Your task to perform on an android device: toggle notifications settings in the gmail app Image 0: 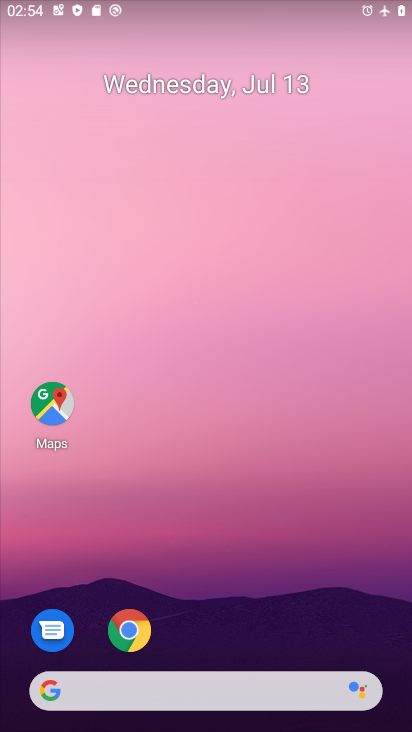
Step 0: drag from (208, 651) to (215, 315)
Your task to perform on an android device: toggle notifications settings in the gmail app Image 1: 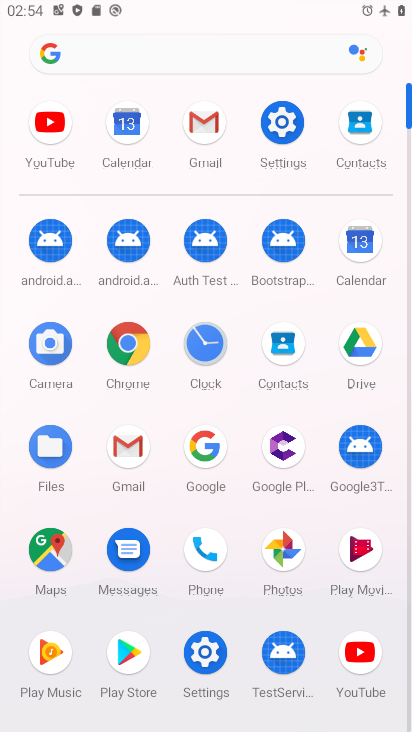
Step 1: click (213, 141)
Your task to perform on an android device: toggle notifications settings in the gmail app Image 2: 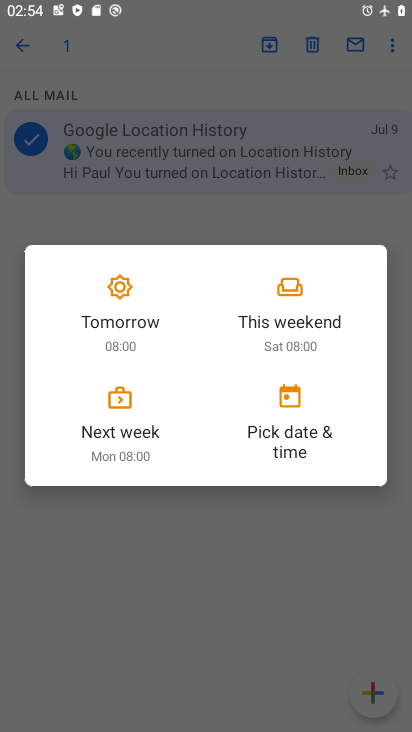
Step 2: click (242, 625)
Your task to perform on an android device: toggle notifications settings in the gmail app Image 3: 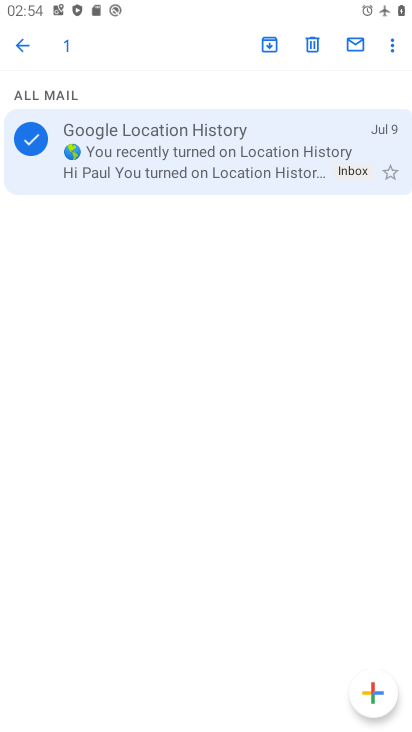
Step 3: click (24, 45)
Your task to perform on an android device: toggle notifications settings in the gmail app Image 4: 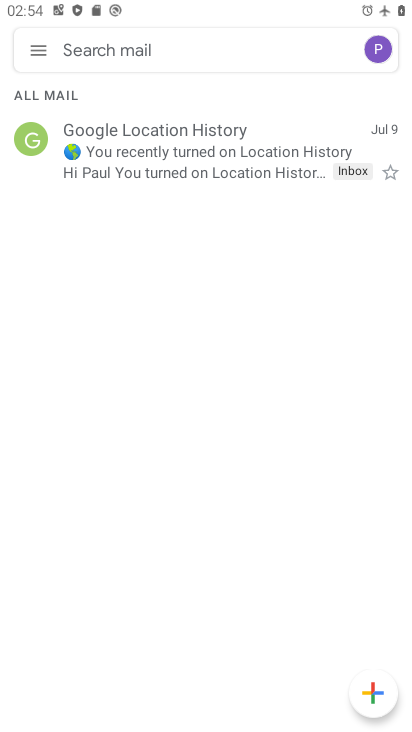
Step 4: click (24, 45)
Your task to perform on an android device: toggle notifications settings in the gmail app Image 5: 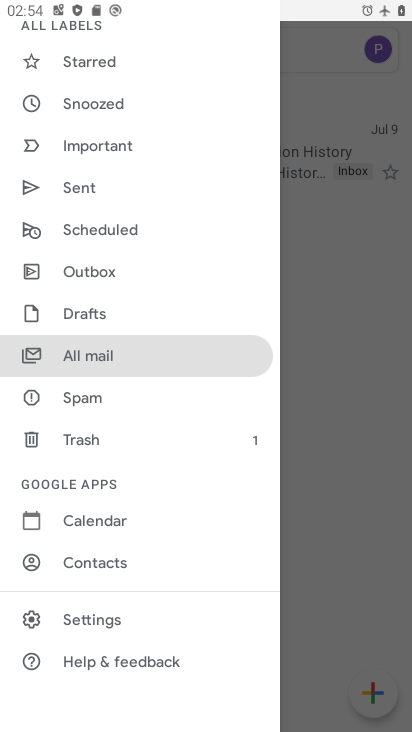
Step 5: click (103, 617)
Your task to perform on an android device: toggle notifications settings in the gmail app Image 6: 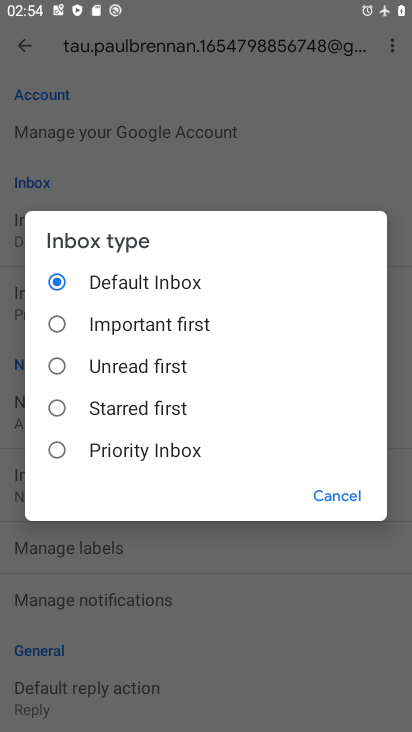
Step 6: click (319, 498)
Your task to perform on an android device: toggle notifications settings in the gmail app Image 7: 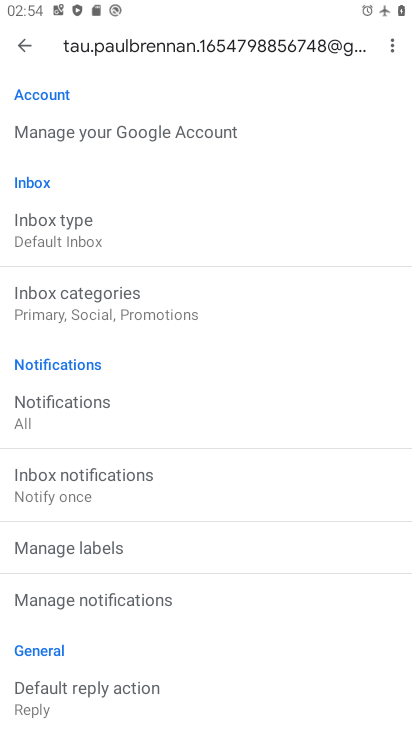
Step 7: click (128, 605)
Your task to perform on an android device: toggle notifications settings in the gmail app Image 8: 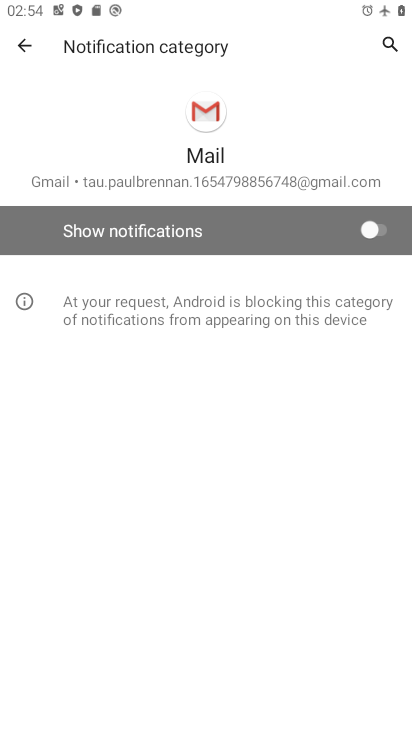
Step 8: click (374, 228)
Your task to perform on an android device: toggle notifications settings in the gmail app Image 9: 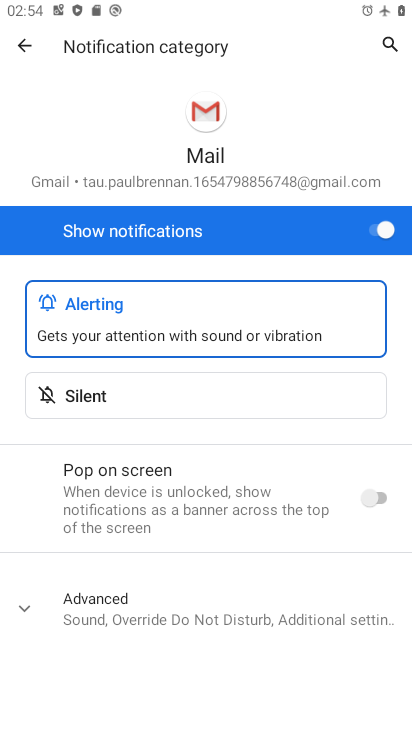
Step 9: task complete